Your task to perform on an android device: turn off data saver in the chrome app Image 0: 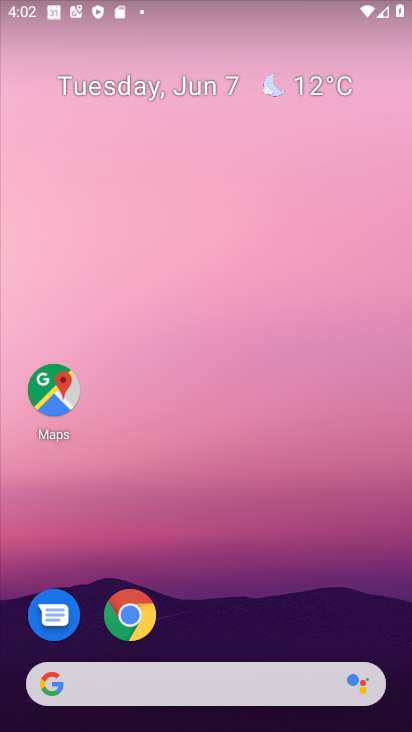
Step 0: click (365, 237)
Your task to perform on an android device: turn off data saver in the chrome app Image 1: 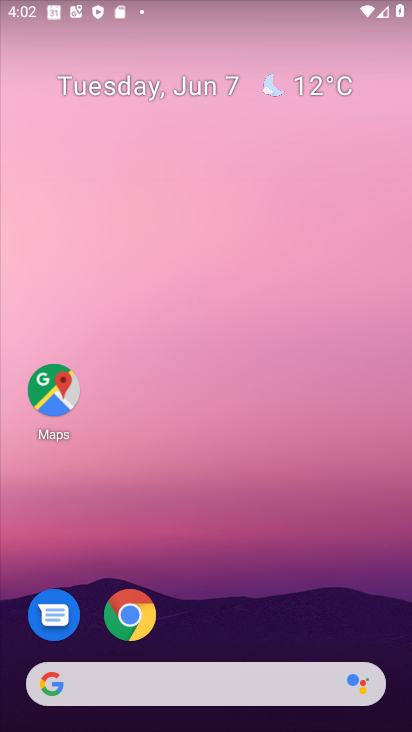
Step 1: drag from (260, 623) to (298, 16)
Your task to perform on an android device: turn off data saver in the chrome app Image 2: 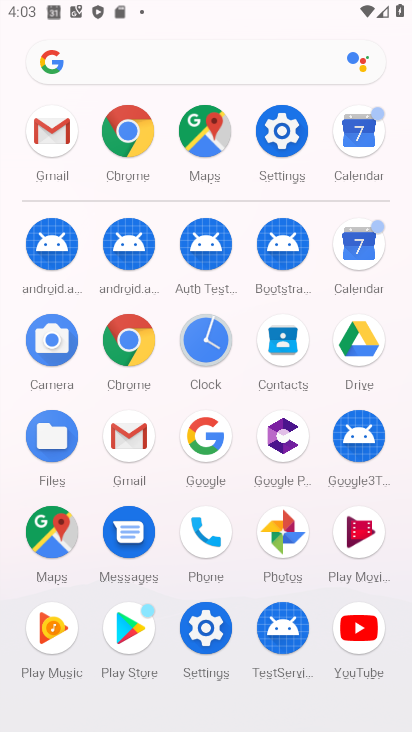
Step 2: click (144, 345)
Your task to perform on an android device: turn off data saver in the chrome app Image 3: 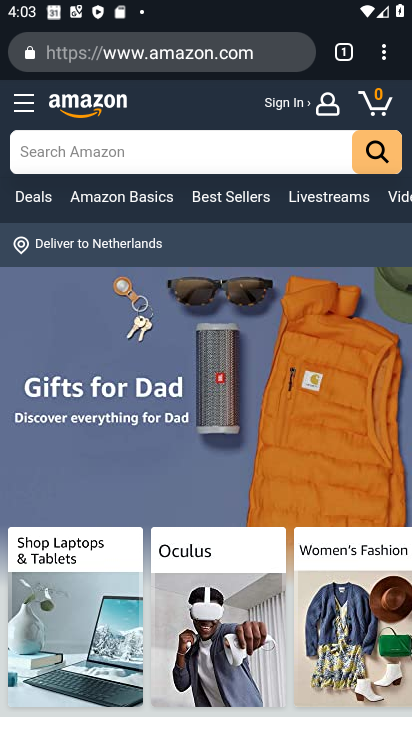
Step 3: click (392, 54)
Your task to perform on an android device: turn off data saver in the chrome app Image 4: 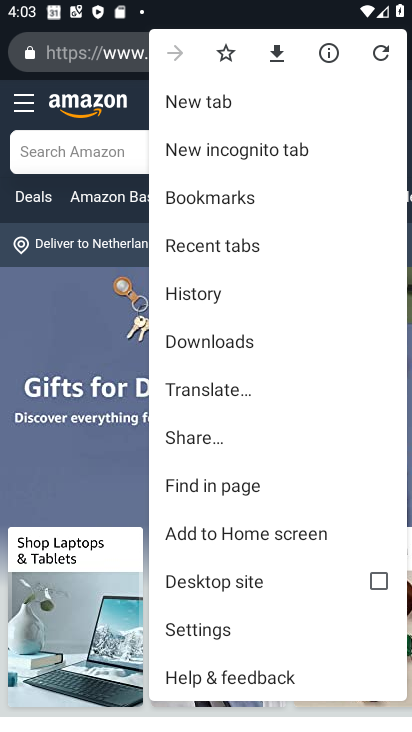
Step 4: click (219, 633)
Your task to perform on an android device: turn off data saver in the chrome app Image 5: 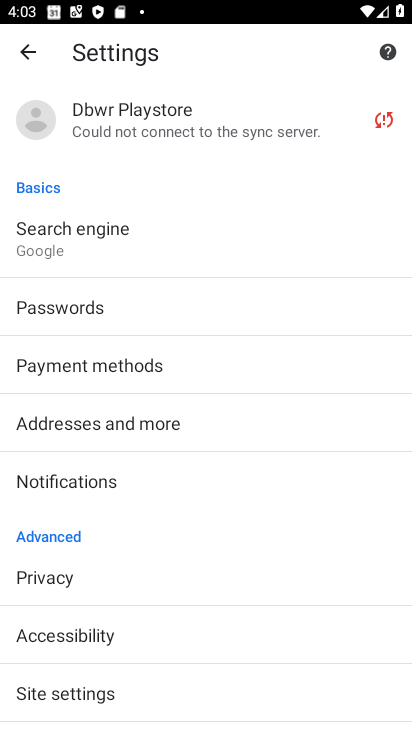
Step 5: drag from (144, 542) to (202, 131)
Your task to perform on an android device: turn off data saver in the chrome app Image 6: 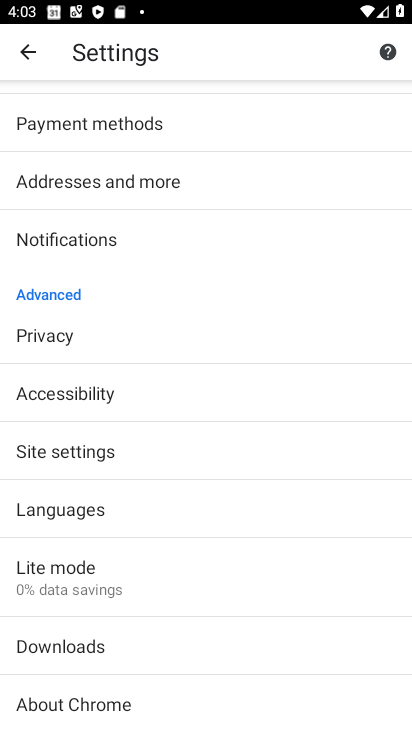
Step 6: click (92, 581)
Your task to perform on an android device: turn off data saver in the chrome app Image 7: 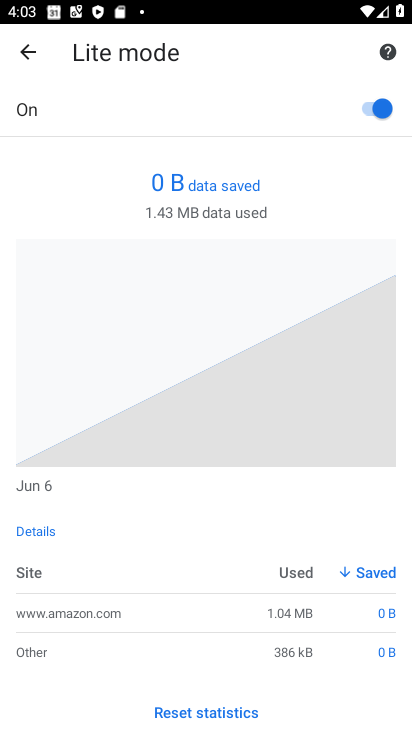
Step 7: click (367, 105)
Your task to perform on an android device: turn off data saver in the chrome app Image 8: 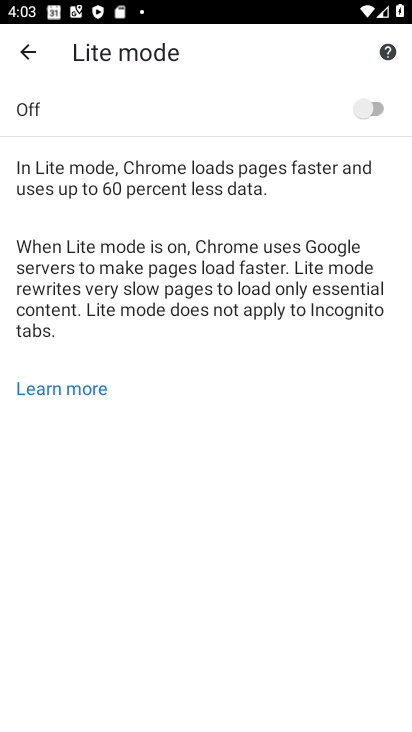
Step 8: task complete